Your task to perform on an android device: Search for seafood restaurants on Google Maps Image 0: 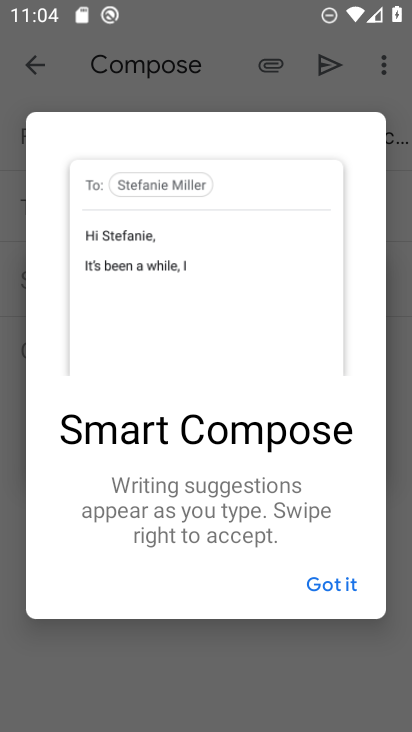
Step 0: press home button
Your task to perform on an android device: Search for seafood restaurants on Google Maps Image 1: 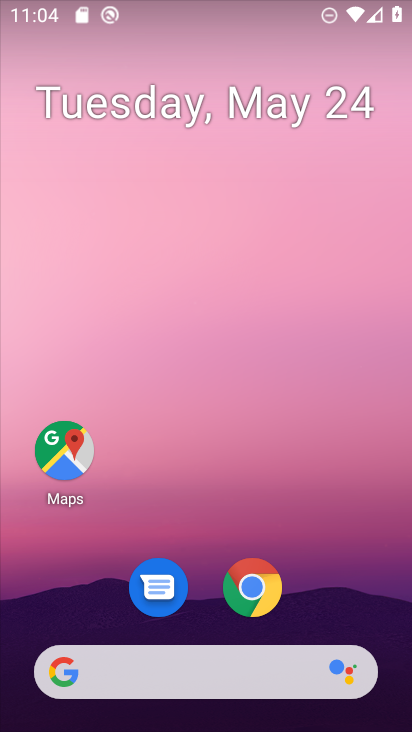
Step 1: drag from (366, 594) to (352, 112)
Your task to perform on an android device: Search for seafood restaurants on Google Maps Image 2: 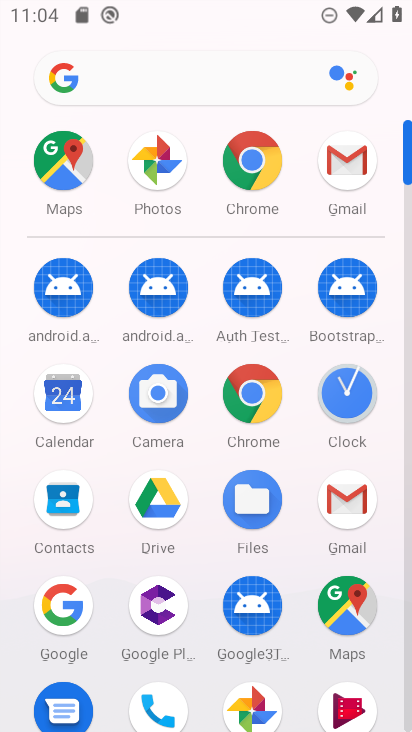
Step 2: click (362, 602)
Your task to perform on an android device: Search for seafood restaurants on Google Maps Image 3: 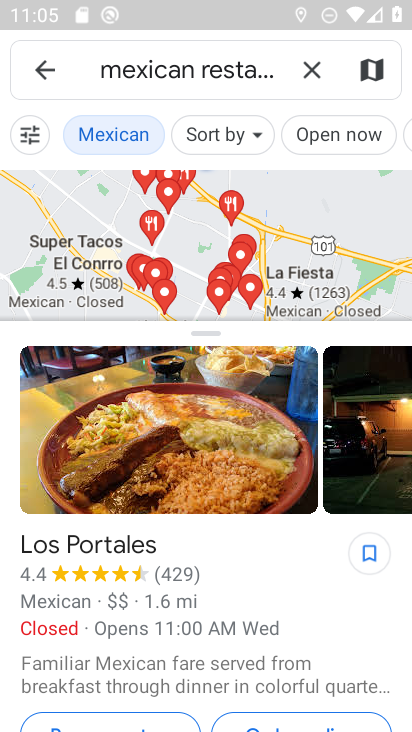
Step 3: click (313, 62)
Your task to perform on an android device: Search for seafood restaurants on Google Maps Image 4: 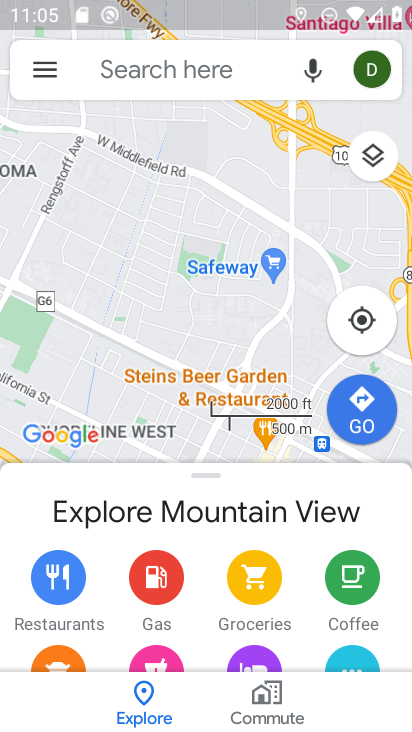
Step 4: click (203, 62)
Your task to perform on an android device: Search for seafood restaurants on Google Maps Image 5: 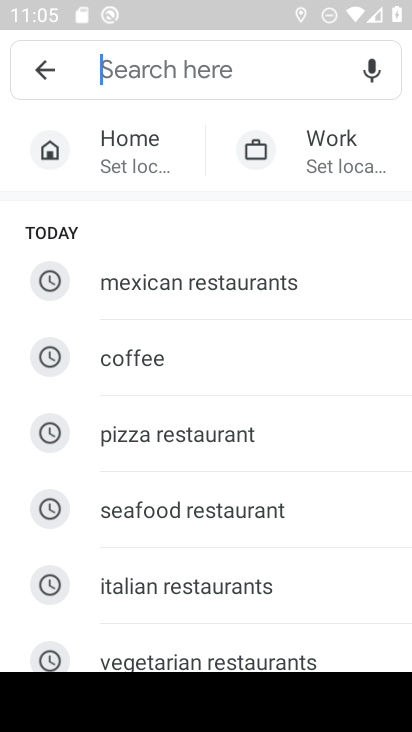
Step 5: type " seafood restaurants"
Your task to perform on an android device: Search for seafood restaurants on Google Maps Image 6: 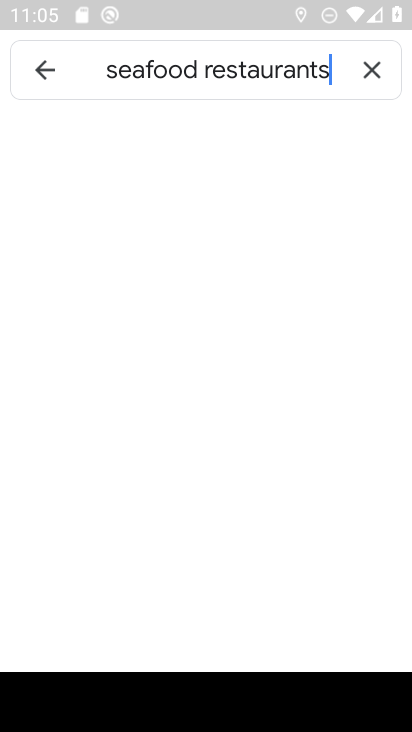
Step 6: type ""
Your task to perform on an android device: Search for seafood restaurants on Google Maps Image 7: 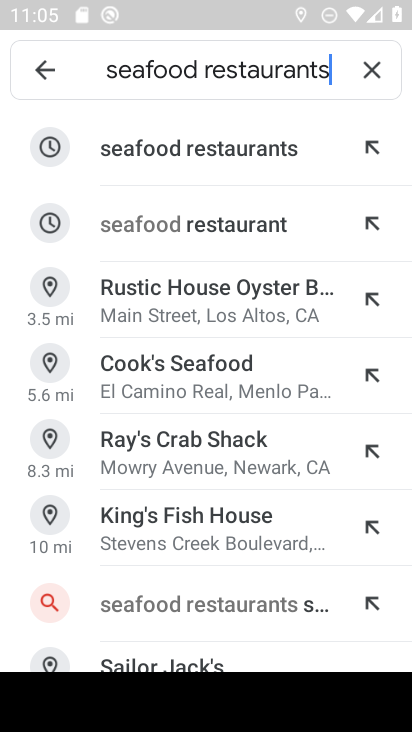
Step 7: click (115, 146)
Your task to perform on an android device: Search for seafood restaurants on Google Maps Image 8: 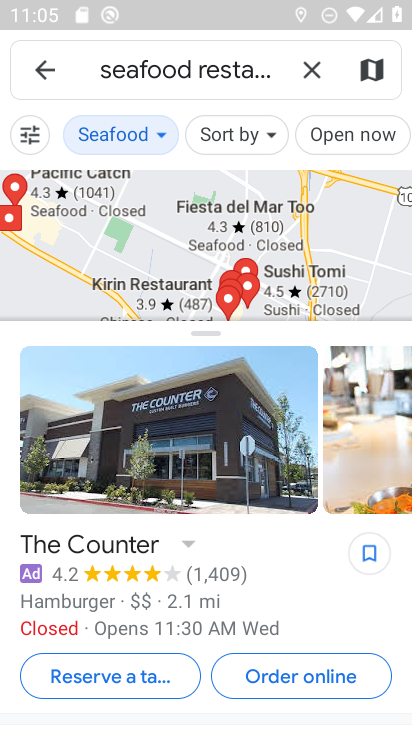
Step 8: task complete